Your task to perform on an android device: Open Reddit.com Image 0: 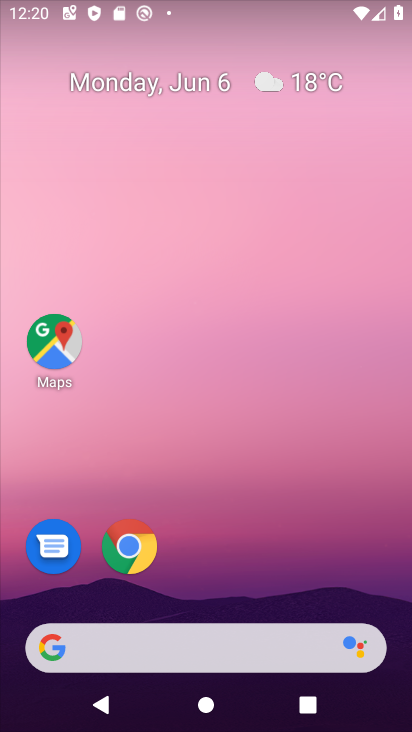
Step 0: click (274, 642)
Your task to perform on an android device: Open Reddit.com Image 1: 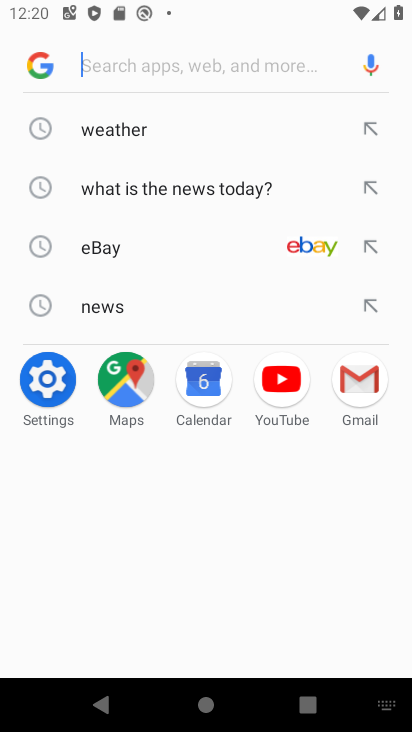
Step 1: type "Reddit.com"
Your task to perform on an android device: Open Reddit.com Image 2: 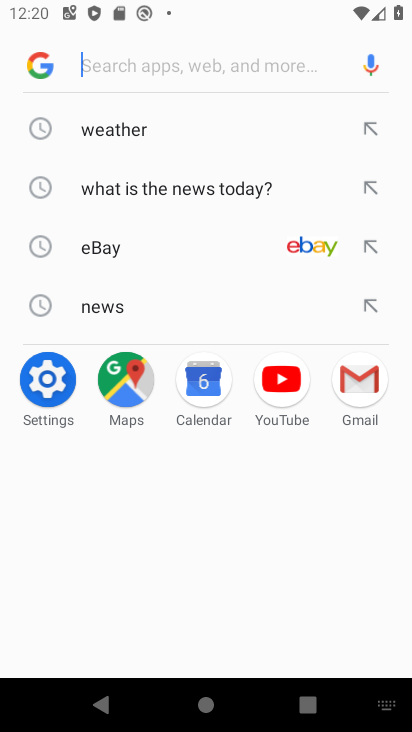
Step 2: click (158, 60)
Your task to perform on an android device: Open Reddit.com Image 3: 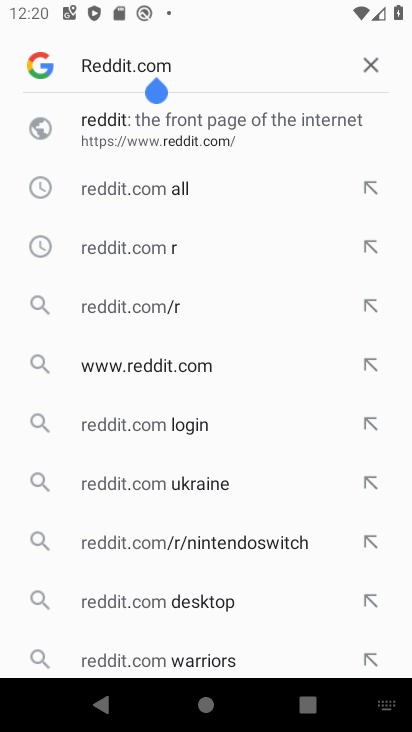
Step 3: click (171, 119)
Your task to perform on an android device: Open Reddit.com Image 4: 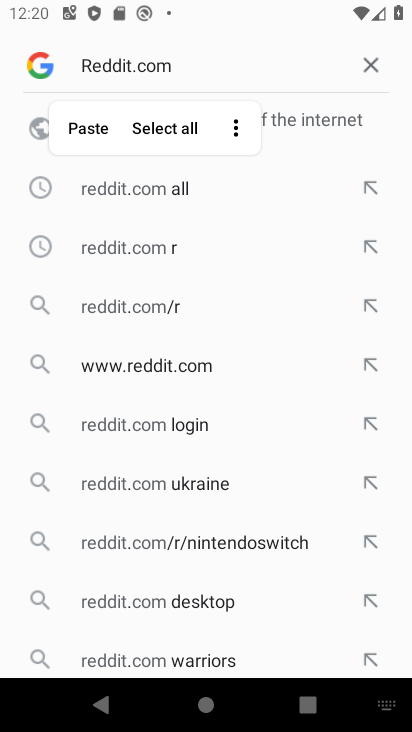
Step 4: click (106, 357)
Your task to perform on an android device: Open Reddit.com Image 5: 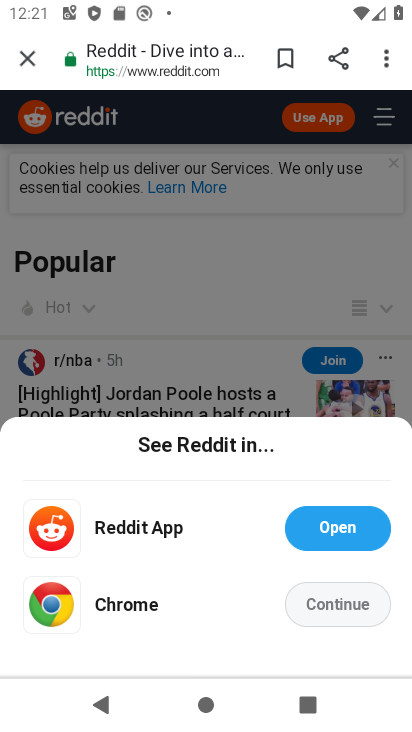
Step 5: task complete